Your task to perform on an android device: Open Yahoo.com Image 0: 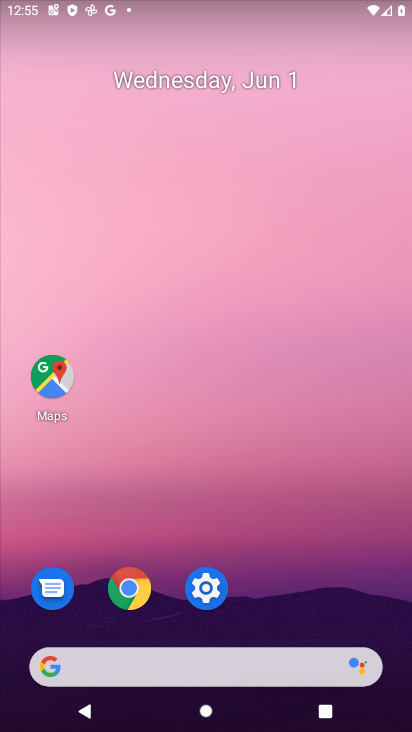
Step 0: click (158, 611)
Your task to perform on an android device: Open Yahoo.com Image 1: 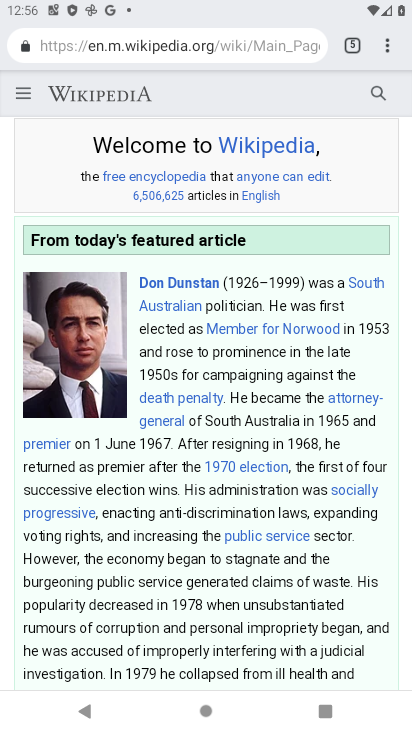
Step 1: click (353, 42)
Your task to perform on an android device: Open Yahoo.com Image 2: 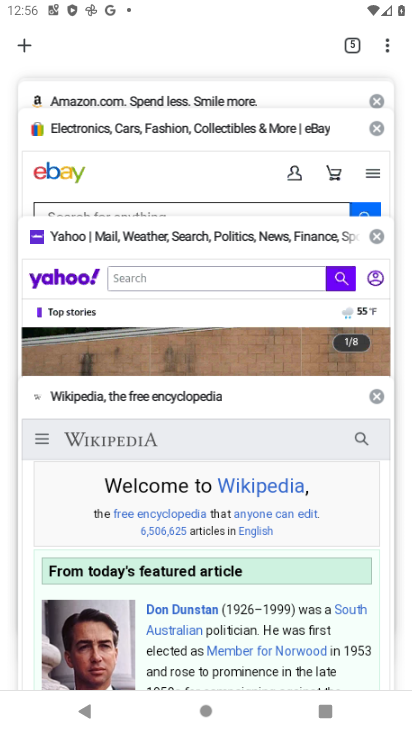
Step 2: click (30, 40)
Your task to perform on an android device: Open Yahoo.com Image 3: 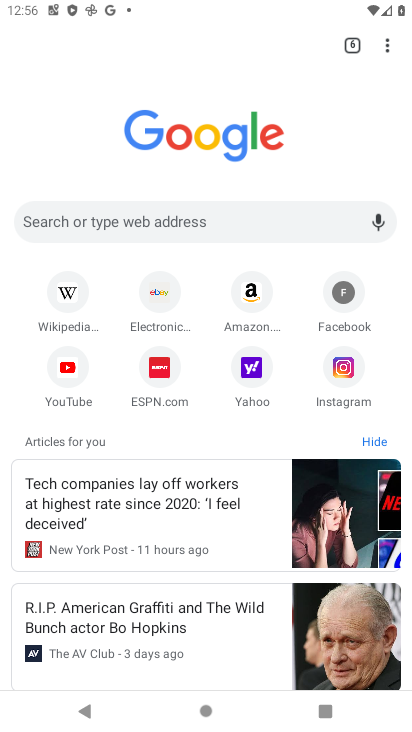
Step 3: click (249, 372)
Your task to perform on an android device: Open Yahoo.com Image 4: 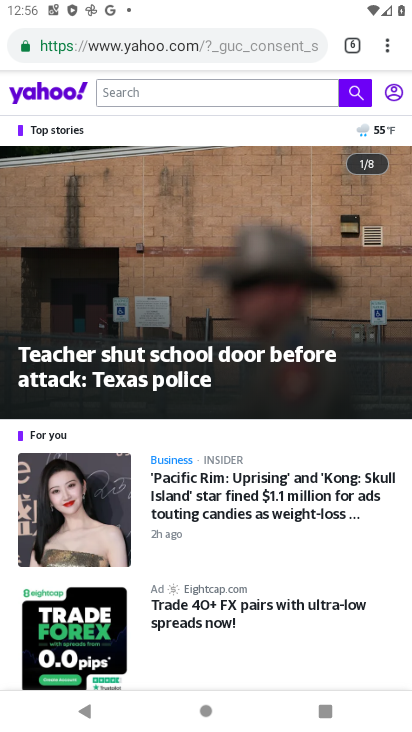
Step 4: task complete